Your task to perform on an android device: Go to sound settings Image 0: 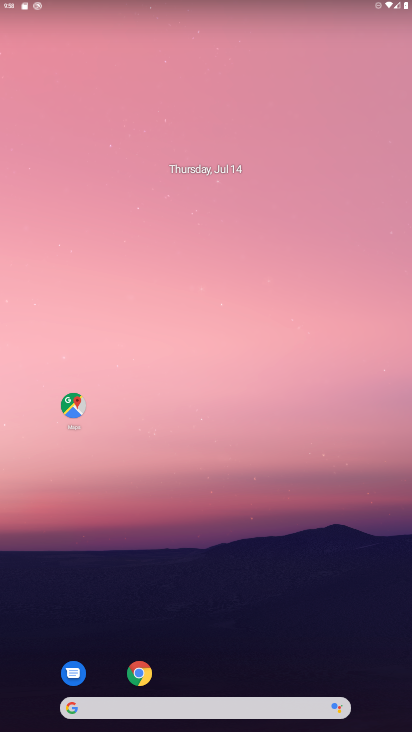
Step 0: drag from (239, 588) to (204, 168)
Your task to perform on an android device: Go to sound settings Image 1: 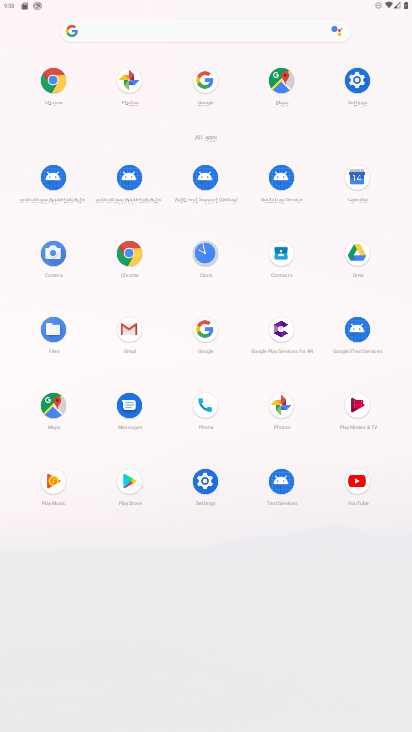
Step 1: click (351, 73)
Your task to perform on an android device: Go to sound settings Image 2: 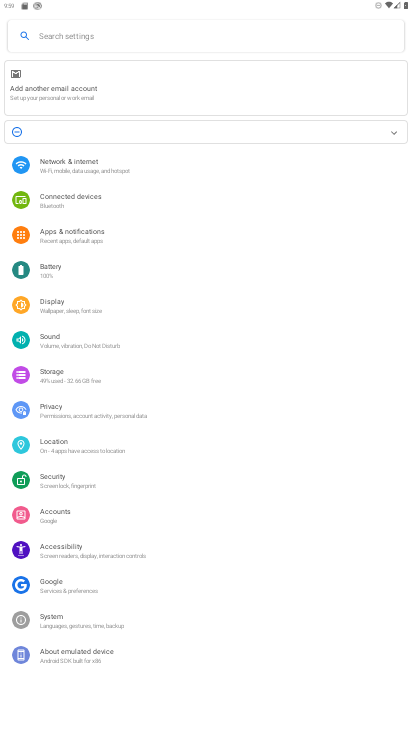
Step 2: drag from (202, 440) to (117, 509)
Your task to perform on an android device: Go to sound settings Image 3: 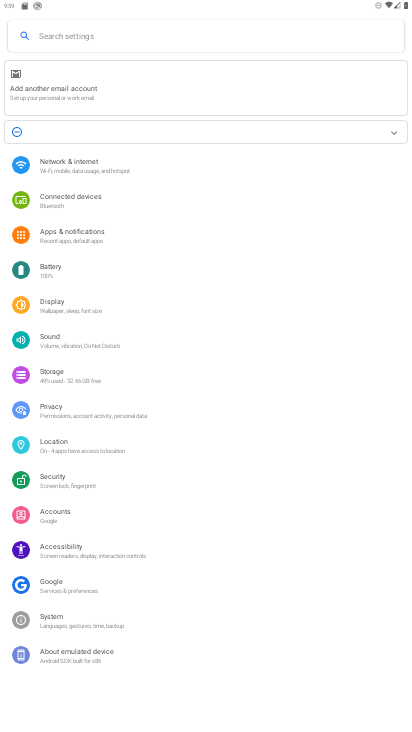
Step 3: click (55, 295)
Your task to perform on an android device: Go to sound settings Image 4: 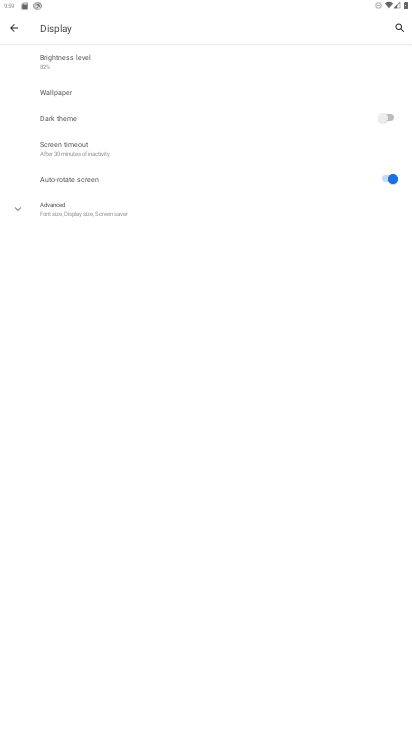
Step 4: task complete